Your task to perform on an android device: empty trash in the gmail app Image 0: 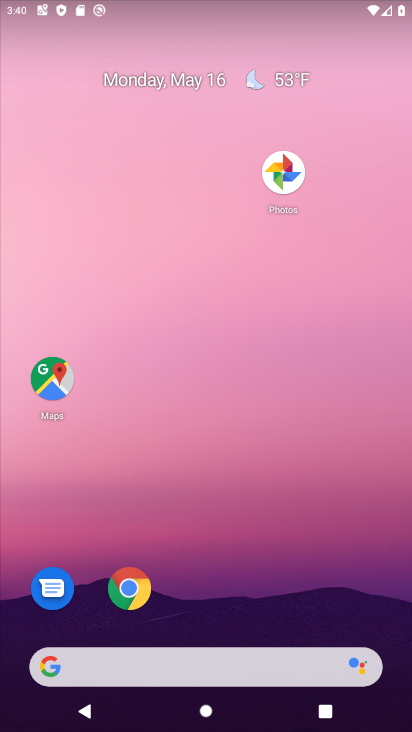
Step 0: drag from (195, 614) to (215, 123)
Your task to perform on an android device: empty trash in the gmail app Image 1: 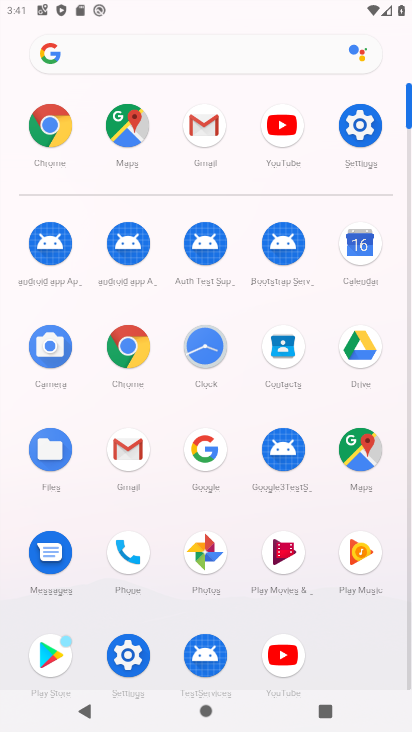
Step 1: click (221, 136)
Your task to perform on an android device: empty trash in the gmail app Image 2: 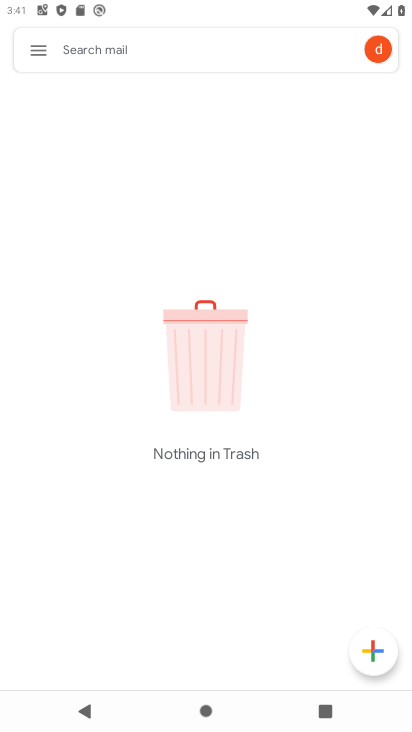
Step 2: task complete